Your task to perform on an android device: Go to Google Image 0: 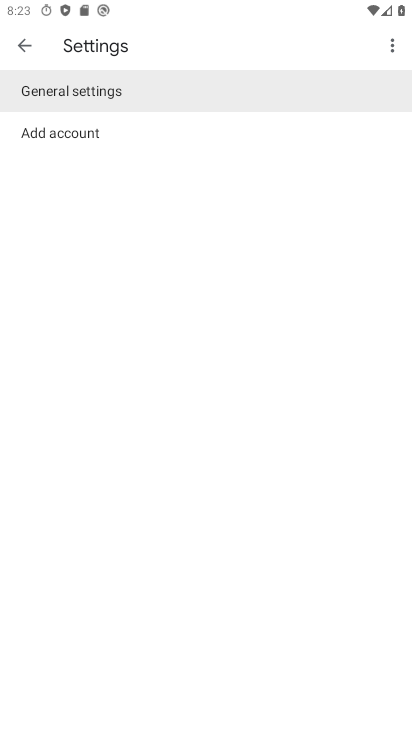
Step 0: press home button
Your task to perform on an android device: Go to Google Image 1: 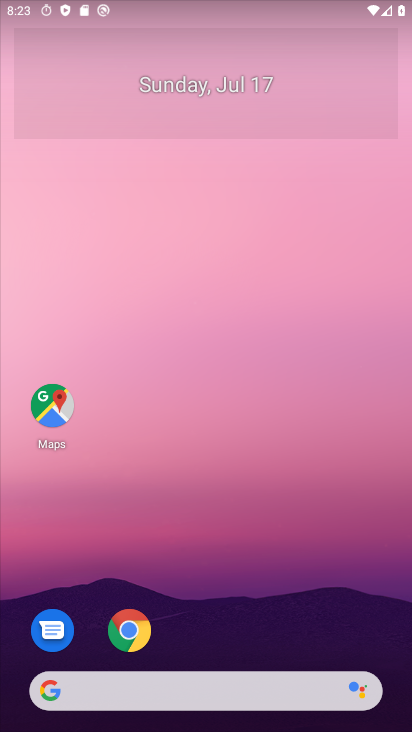
Step 1: click (103, 697)
Your task to perform on an android device: Go to Google Image 2: 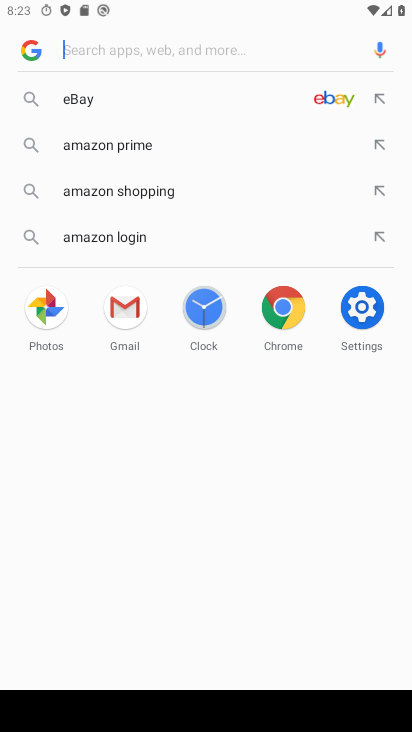
Step 2: task complete